Your task to perform on an android device: set default search engine in the chrome app Image 0: 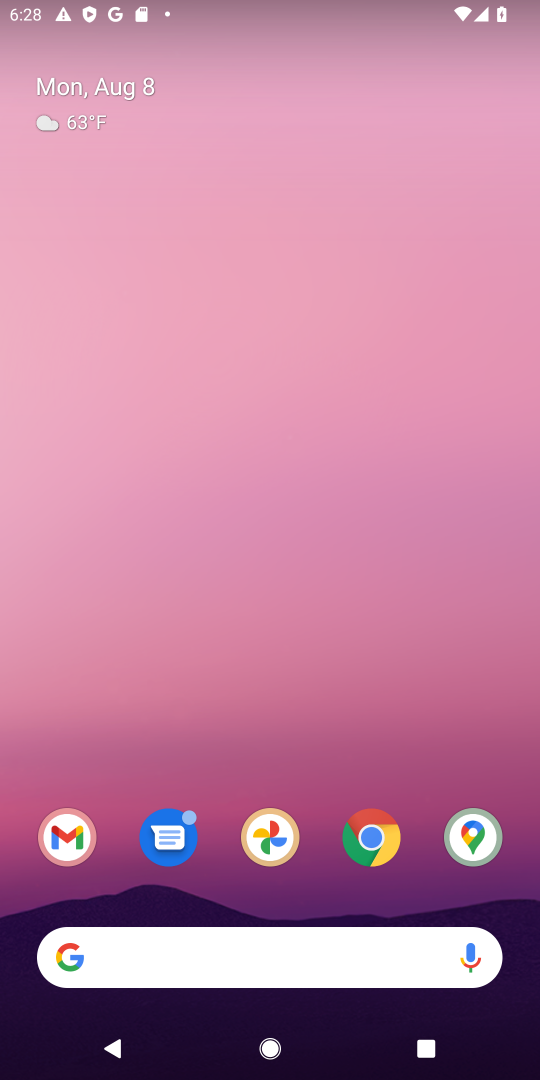
Step 0: drag from (191, 570) to (173, 73)
Your task to perform on an android device: set default search engine in the chrome app Image 1: 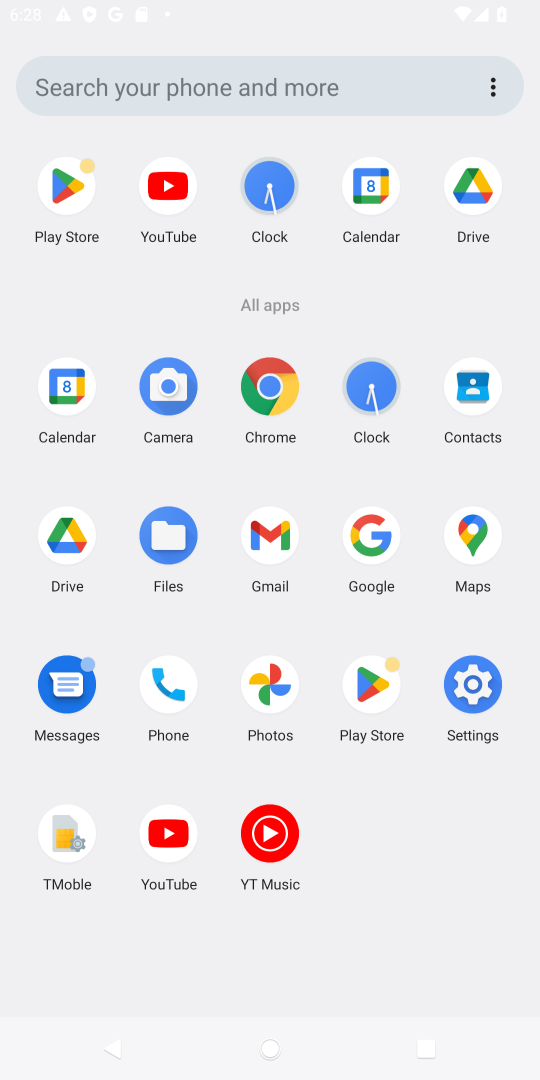
Step 1: drag from (328, 879) to (283, 23)
Your task to perform on an android device: set default search engine in the chrome app Image 2: 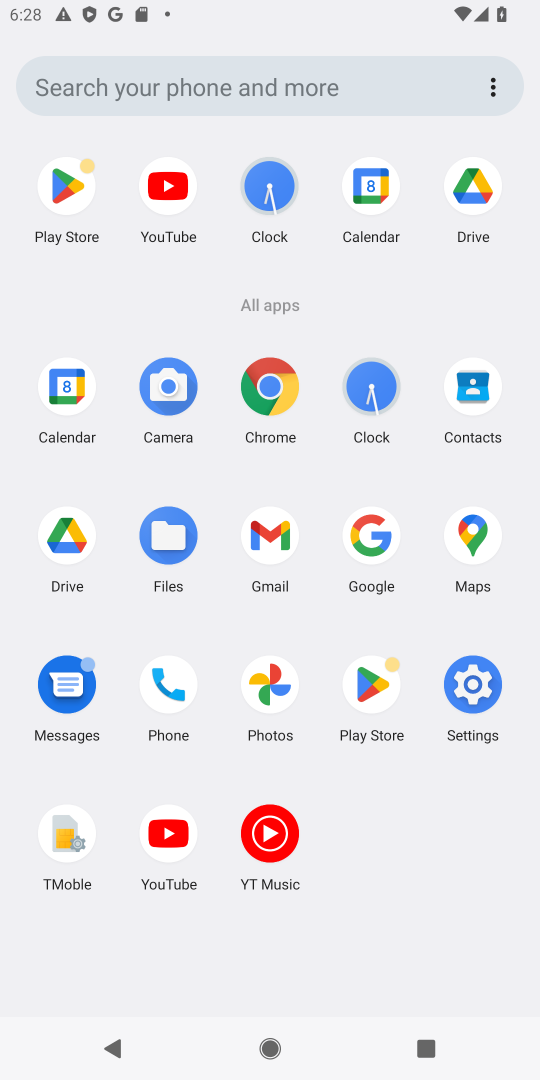
Step 2: click (259, 388)
Your task to perform on an android device: set default search engine in the chrome app Image 3: 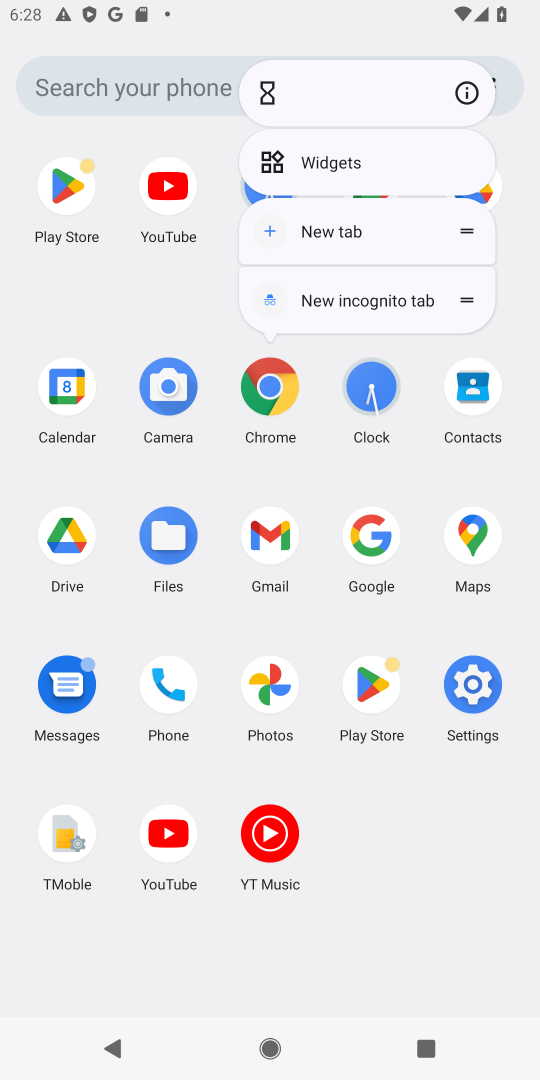
Step 3: click (266, 394)
Your task to perform on an android device: set default search engine in the chrome app Image 4: 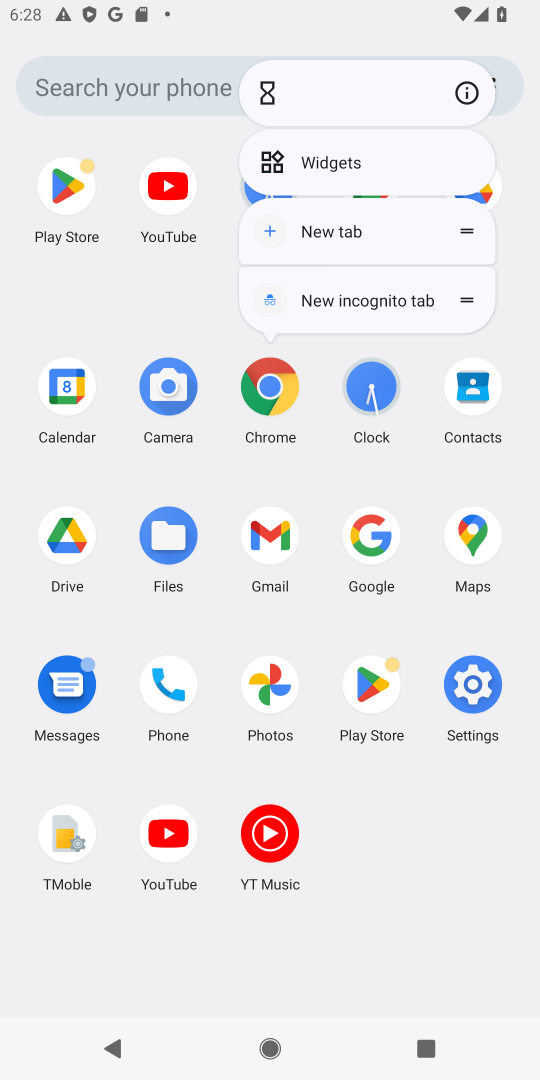
Step 4: click (269, 393)
Your task to perform on an android device: set default search engine in the chrome app Image 5: 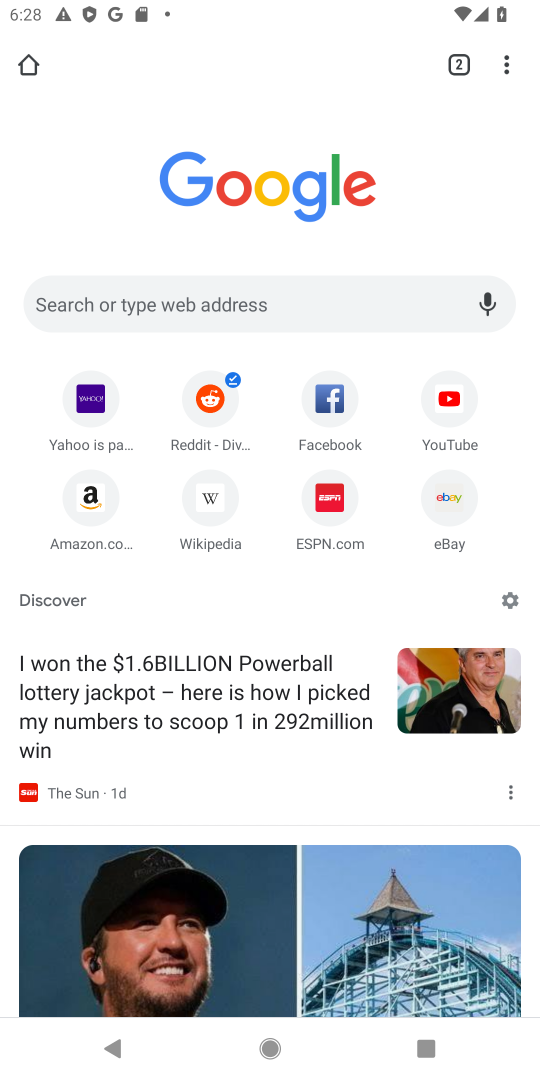
Step 5: drag from (505, 74) to (313, 654)
Your task to perform on an android device: set default search engine in the chrome app Image 6: 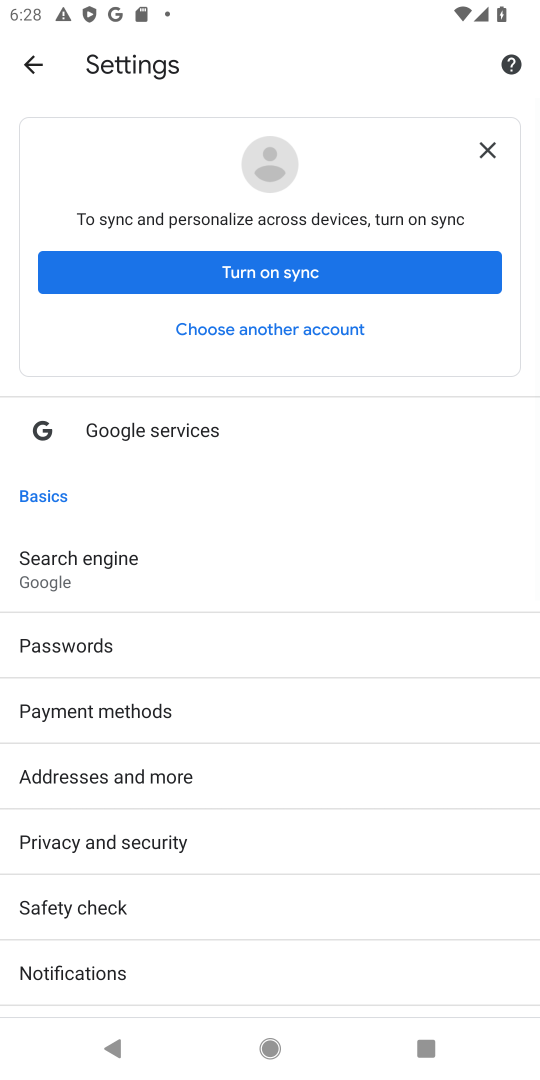
Step 6: click (127, 583)
Your task to perform on an android device: set default search engine in the chrome app Image 7: 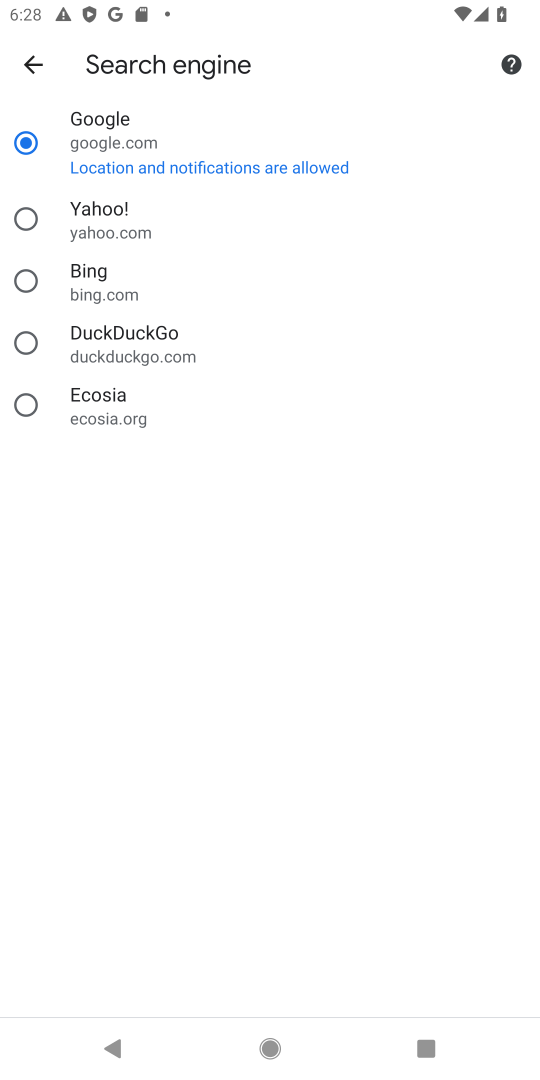
Step 7: task complete